Your task to perform on an android device: allow cookies in the chrome app Image 0: 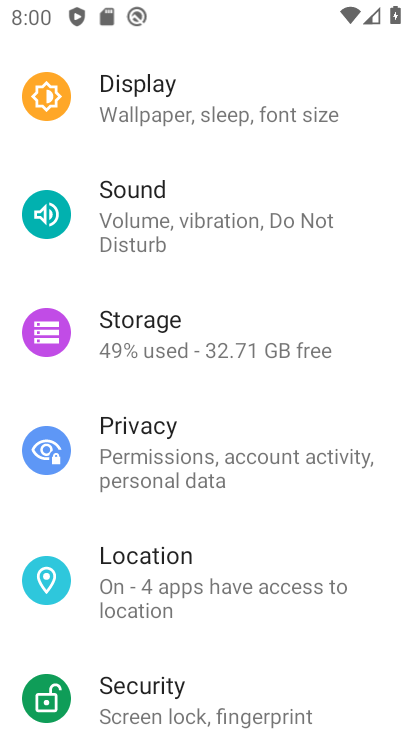
Step 0: press home button
Your task to perform on an android device: allow cookies in the chrome app Image 1: 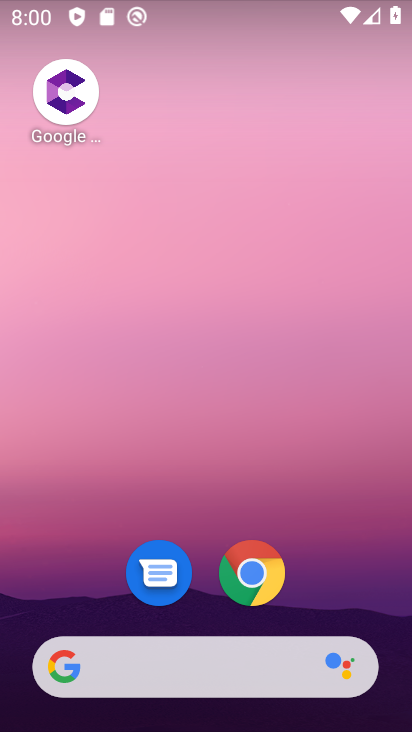
Step 1: click (260, 574)
Your task to perform on an android device: allow cookies in the chrome app Image 2: 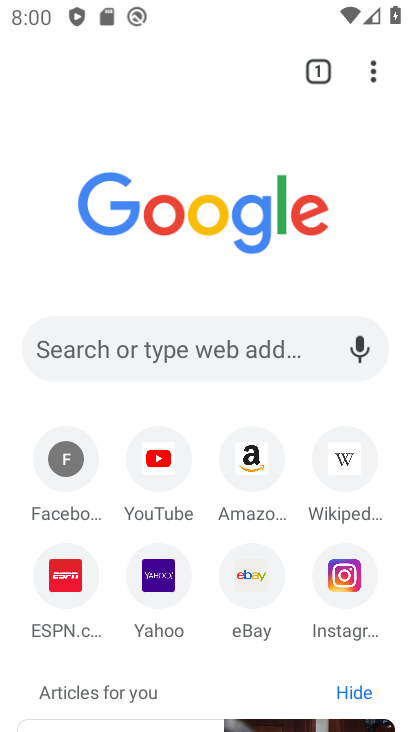
Step 2: click (381, 79)
Your task to perform on an android device: allow cookies in the chrome app Image 3: 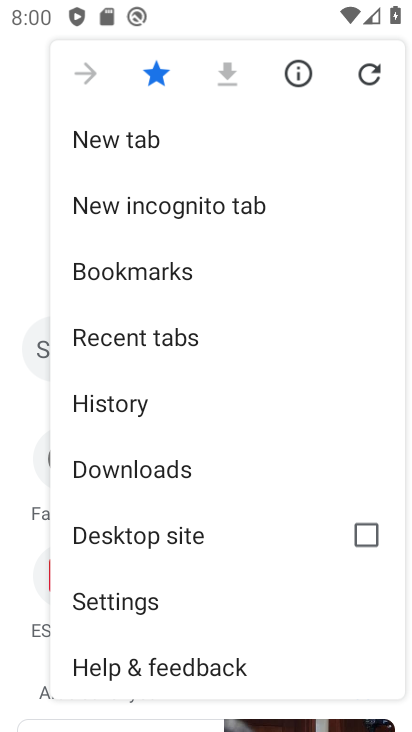
Step 3: drag from (201, 556) to (172, 289)
Your task to perform on an android device: allow cookies in the chrome app Image 4: 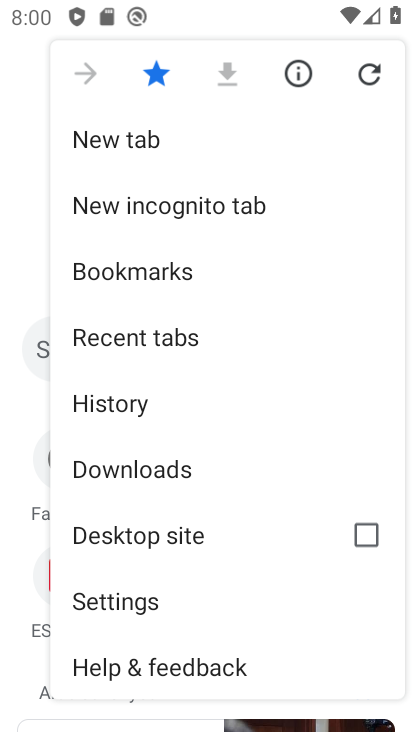
Step 4: click (175, 616)
Your task to perform on an android device: allow cookies in the chrome app Image 5: 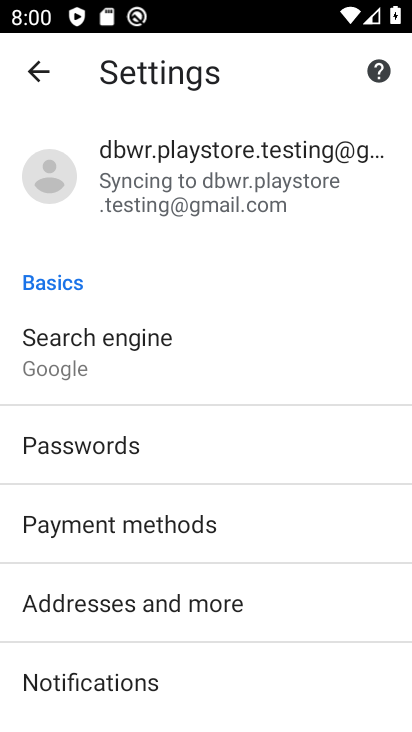
Step 5: drag from (264, 679) to (215, 267)
Your task to perform on an android device: allow cookies in the chrome app Image 6: 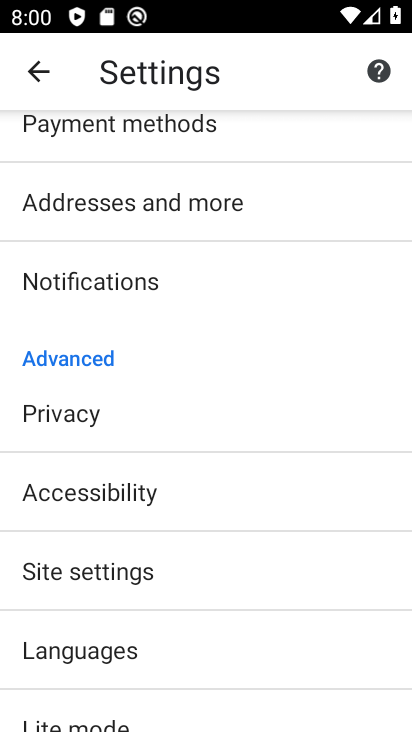
Step 6: click (206, 564)
Your task to perform on an android device: allow cookies in the chrome app Image 7: 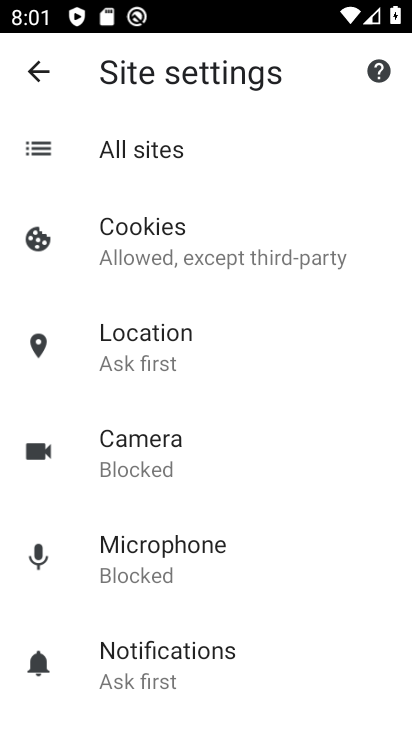
Step 7: click (260, 276)
Your task to perform on an android device: allow cookies in the chrome app Image 8: 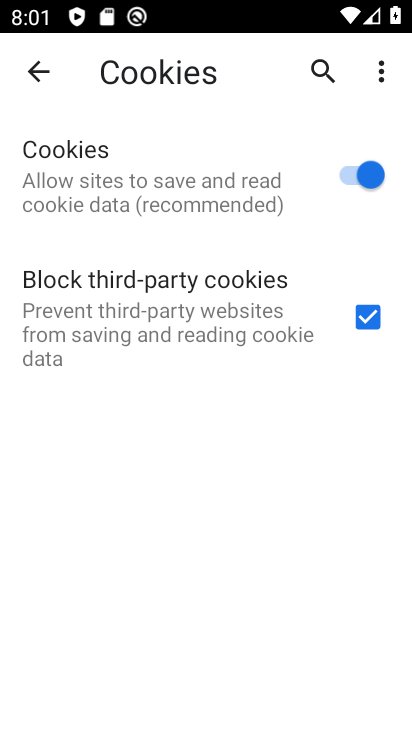
Step 8: task complete